Your task to perform on an android device: toggle show notifications on the lock screen Image 0: 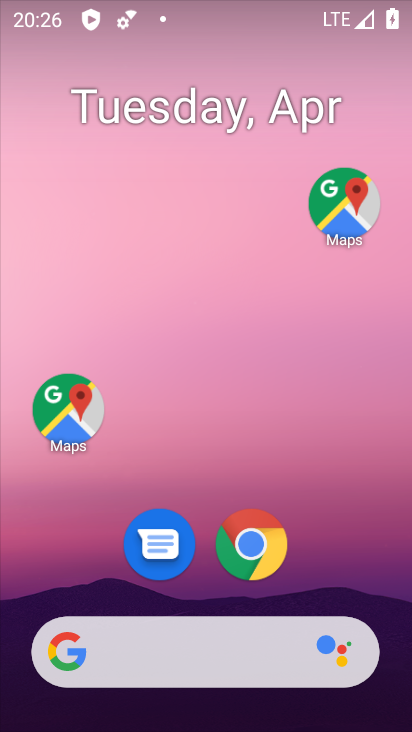
Step 0: drag from (161, 652) to (341, 46)
Your task to perform on an android device: toggle show notifications on the lock screen Image 1: 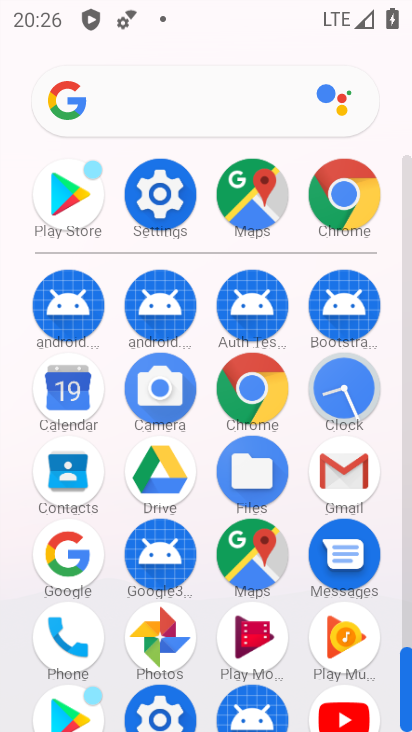
Step 1: click (166, 202)
Your task to perform on an android device: toggle show notifications on the lock screen Image 2: 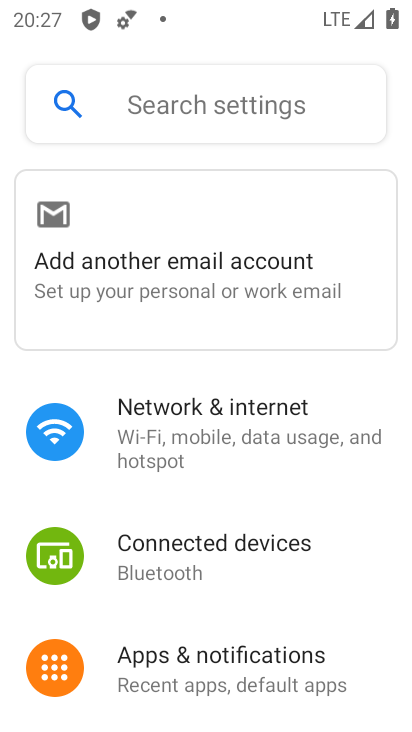
Step 2: drag from (255, 532) to (376, 190)
Your task to perform on an android device: toggle show notifications on the lock screen Image 3: 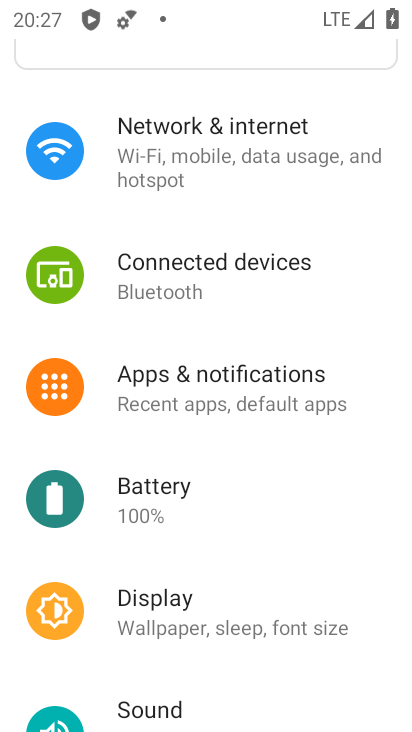
Step 3: click (214, 386)
Your task to perform on an android device: toggle show notifications on the lock screen Image 4: 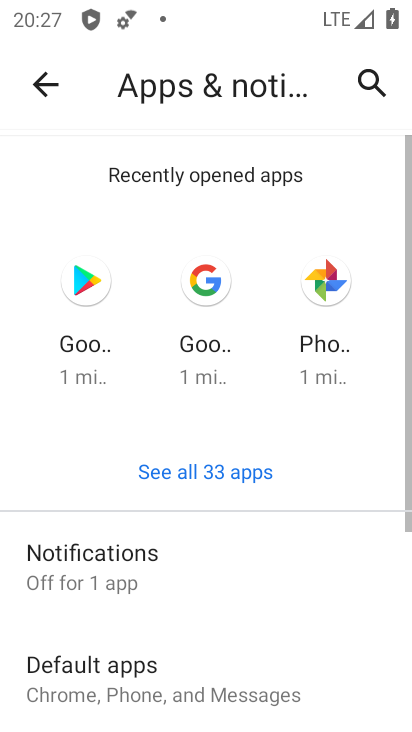
Step 4: click (137, 565)
Your task to perform on an android device: toggle show notifications on the lock screen Image 5: 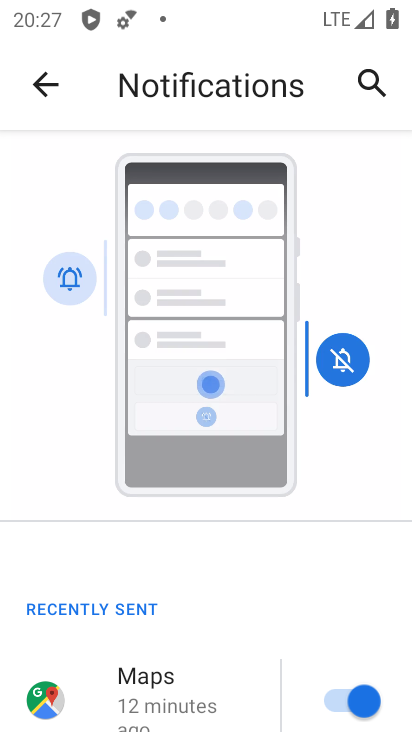
Step 5: drag from (225, 634) to (385, 76)
Your task to perform on an android device: toggle show notifications on the lock screen Image 6: 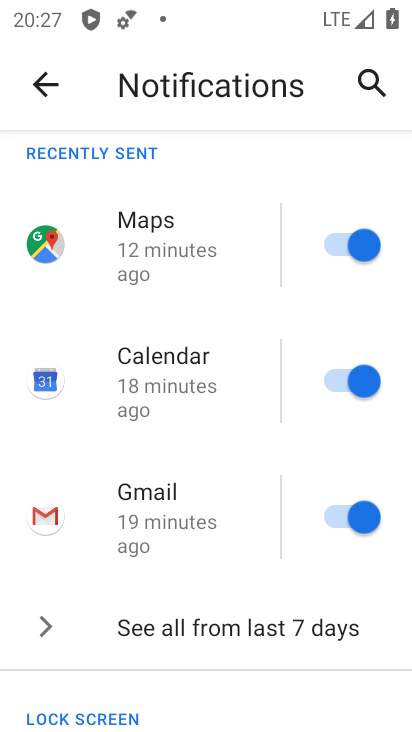
Step 6: drag from (177, 670) to (296, 349)
Your task to perform on an android device: toggle show notifications on the lock screen Image 7: 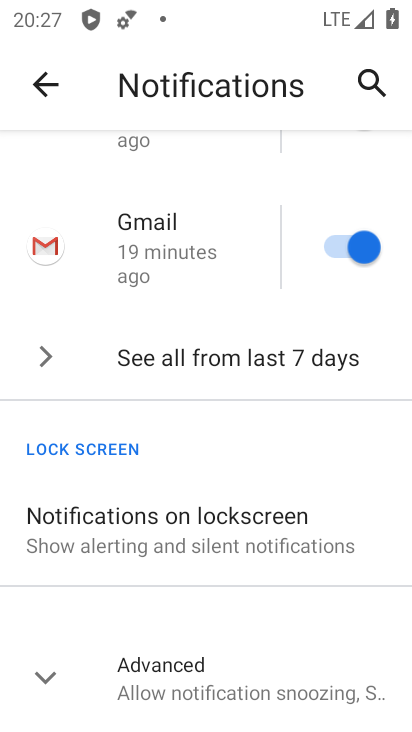
Step 7: click (217, 525)
Your task to perform on an android device: toggle show notifications on the lock screen Image 8: 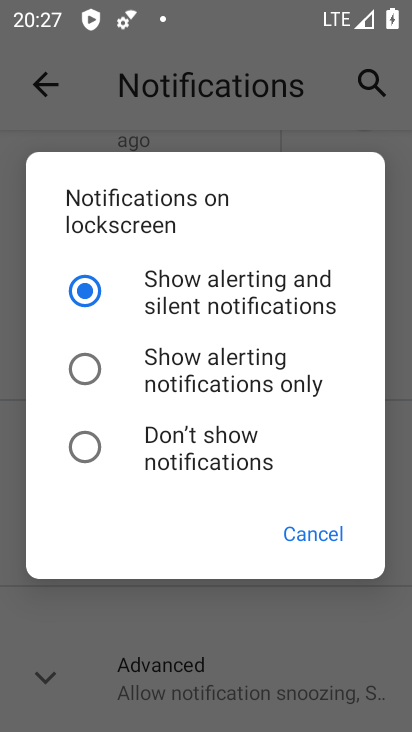
Step 8: click (86, 443)
Your task to perform on an android device: toggle show notifications on the lock screen Image 9: 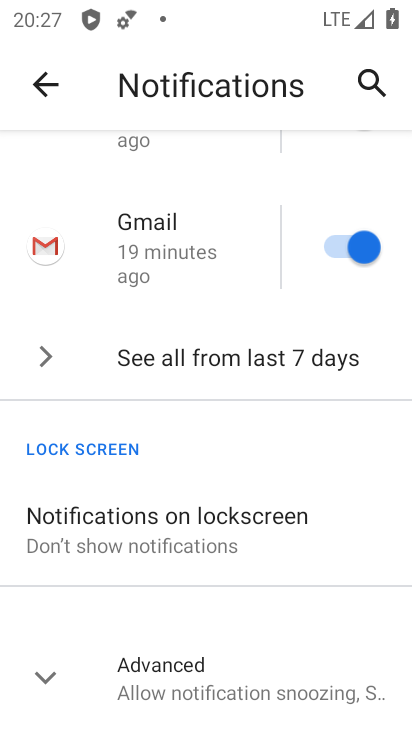
Step 9: task complete